Your task to perform on an android device: choose inbox layout in the gmail app Image 0: 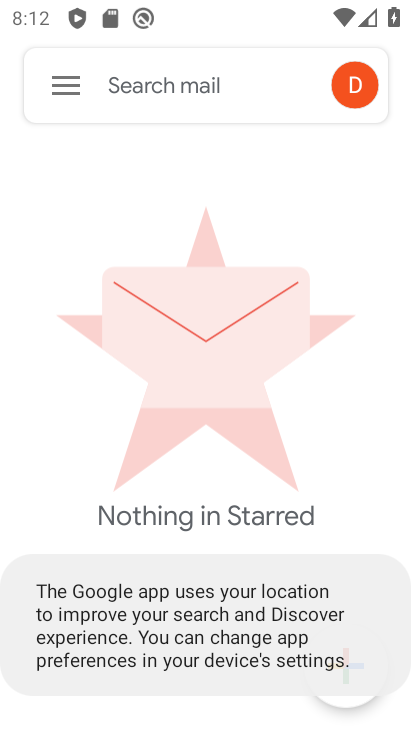
Step 0: press home button
Your task to perform on an android device: choose inbox layout in the gmail app Image 1: 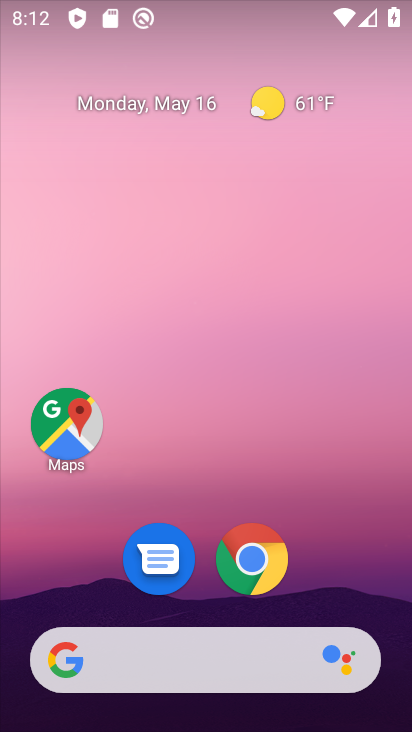
Step 1: drag from (315, 588) to (371, 199)
Your task to perform on an android device: choose inbox layout in the gmail app Image 2: 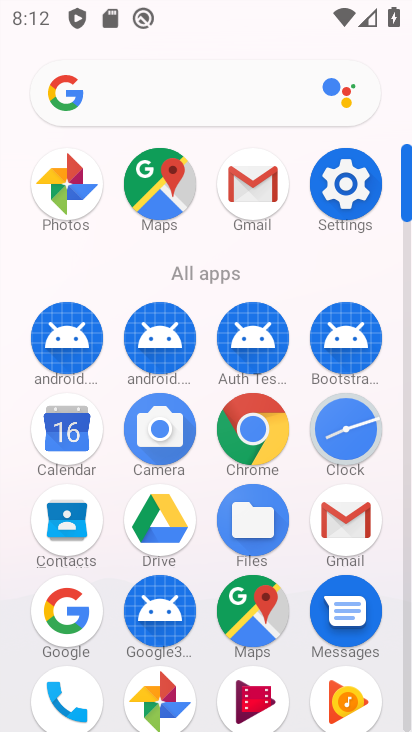
Step 2: click (257, 186)
Your task to perform on an android device: choose inbox layout in the gmail app Image 3: 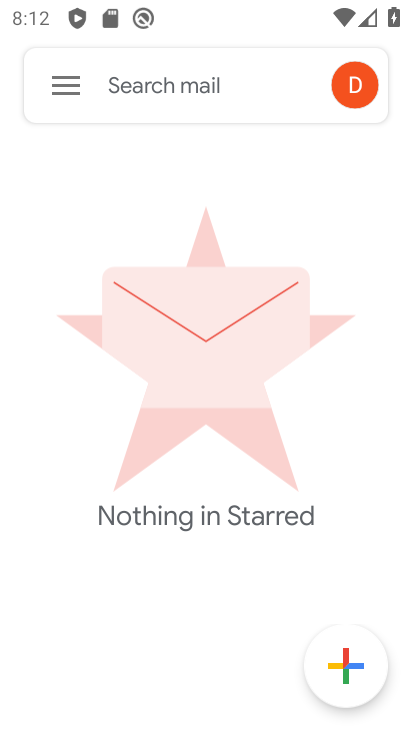
Step 3: click (64, 96)
Your task to perform on an android device: choose inbox layout in the gmail app Image 4: 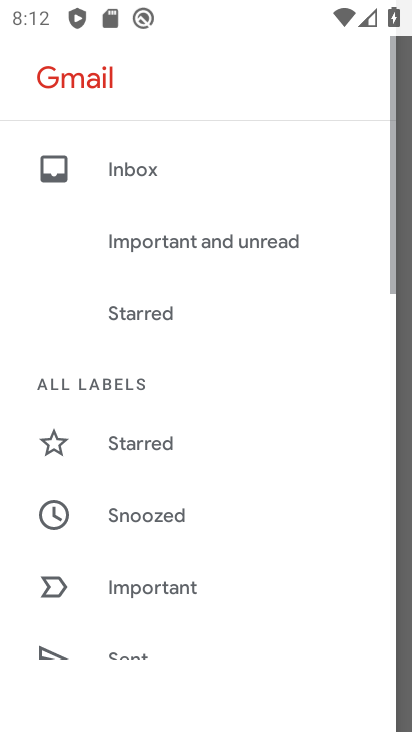
Step 4: click (133, 175)
Your task to perform on an android device: choose inbox layout in the gmail app Image 5: 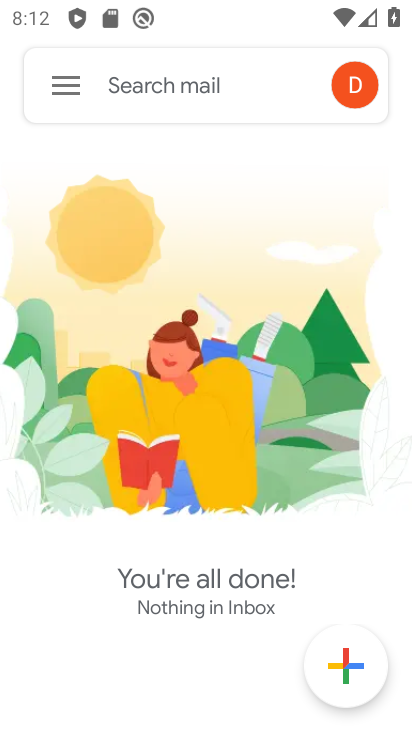
Step 5: task complete